Your task to perform on an android device: turn on bluetooth scan Image 0: 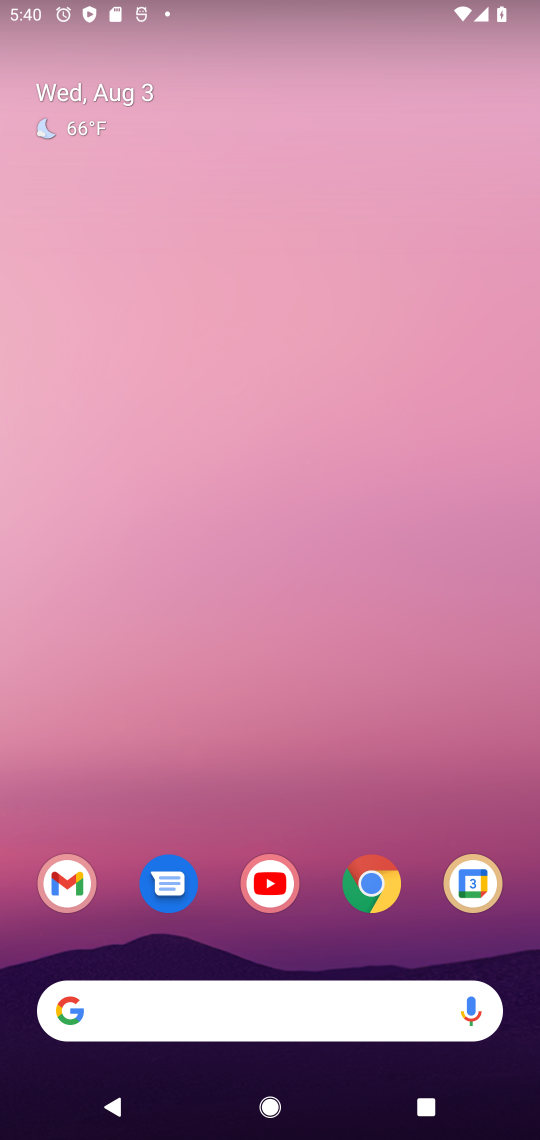
Step 0: drag from (361, 973) to (383, 257)
Your task to perform on an android device: turn on bluetooth scan Image 1: 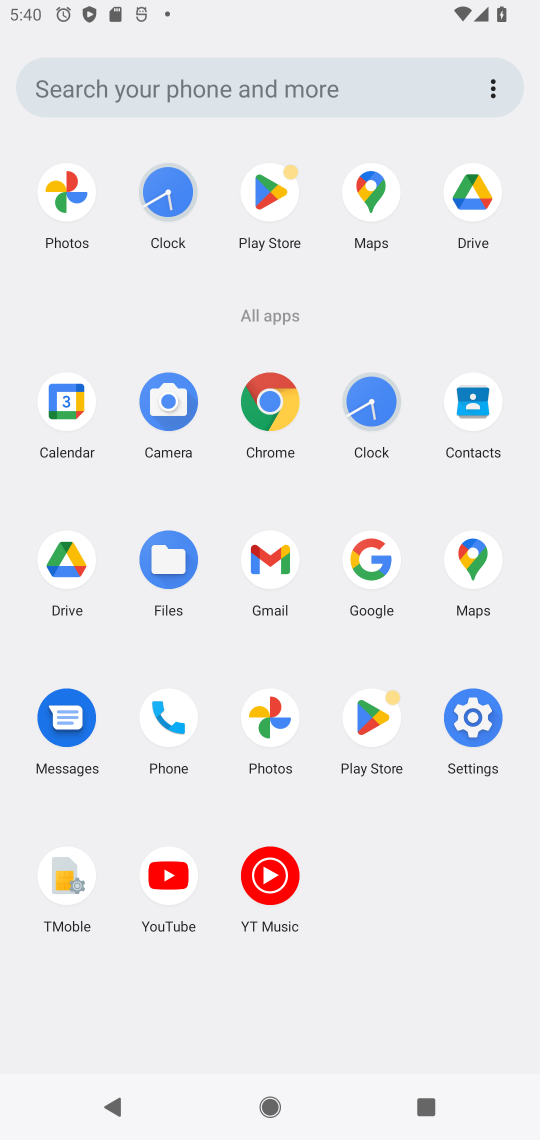
Step 1: click (481, 739)
Your task to perform on an android device: turn on bluetooth scan Image 2: 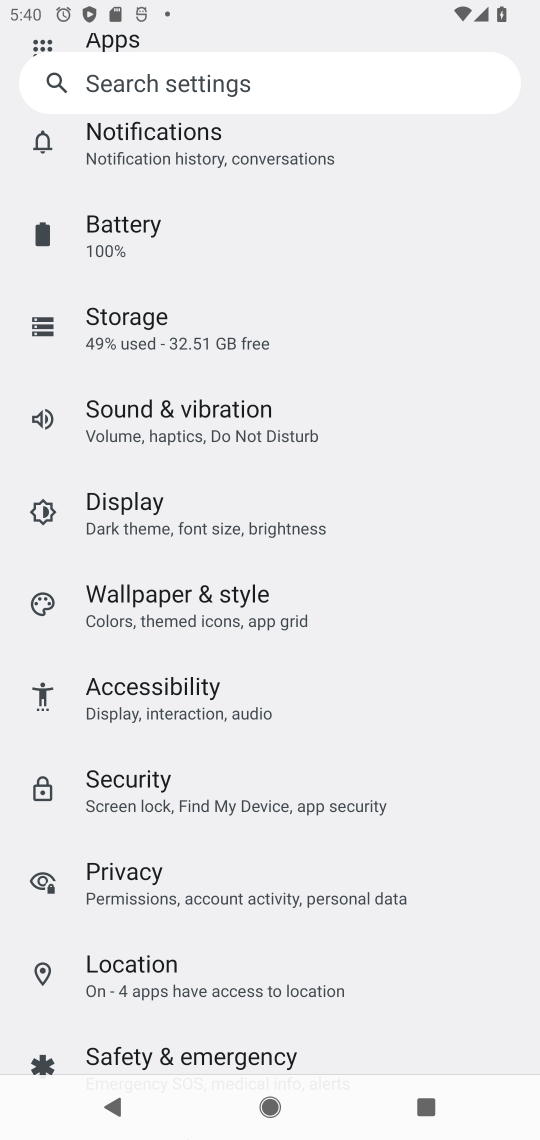
Step 2: click (172, 978)
Your task to perform on an android device: turn on bluetooth scan Image 3: 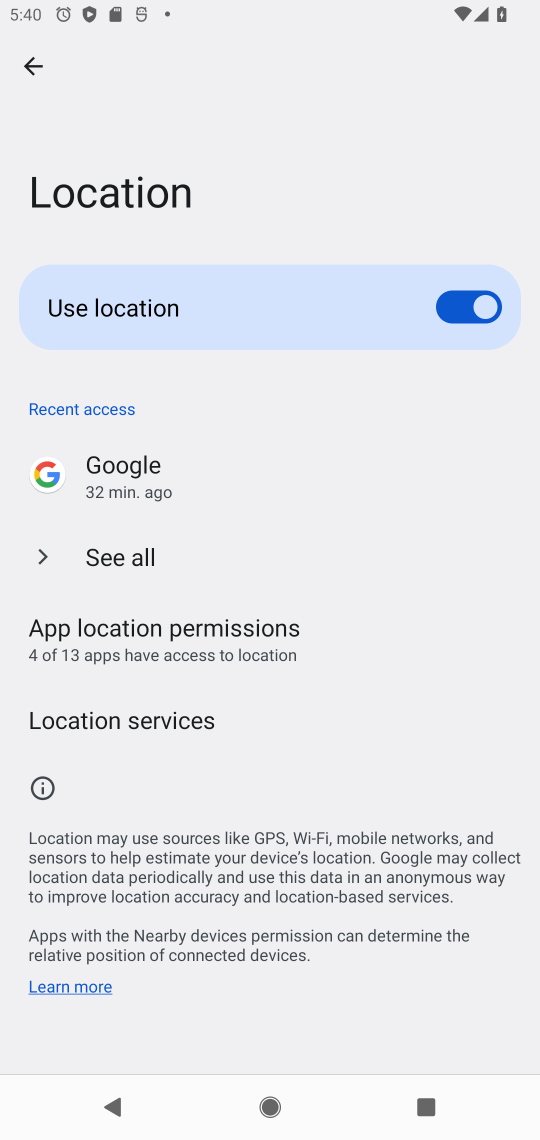
Step 3: drag from (172, 975) to (244, 453)
Your task to perform on an android device: turn on bluetooth scan Image 4: 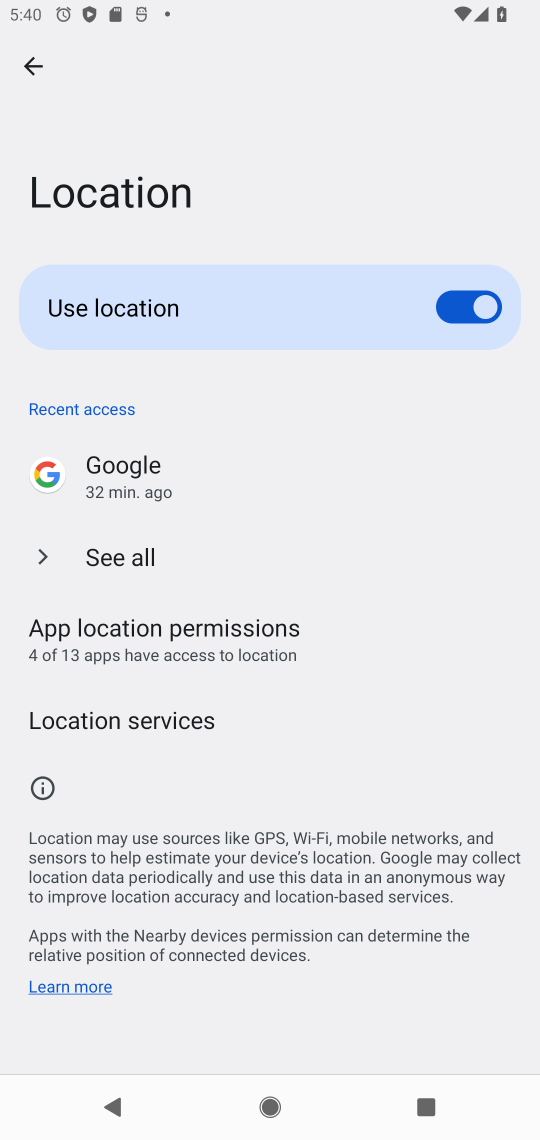
Step 4: click (95, 707)
Your task to perform on an android device: turn on bluetooth scan Image 5: 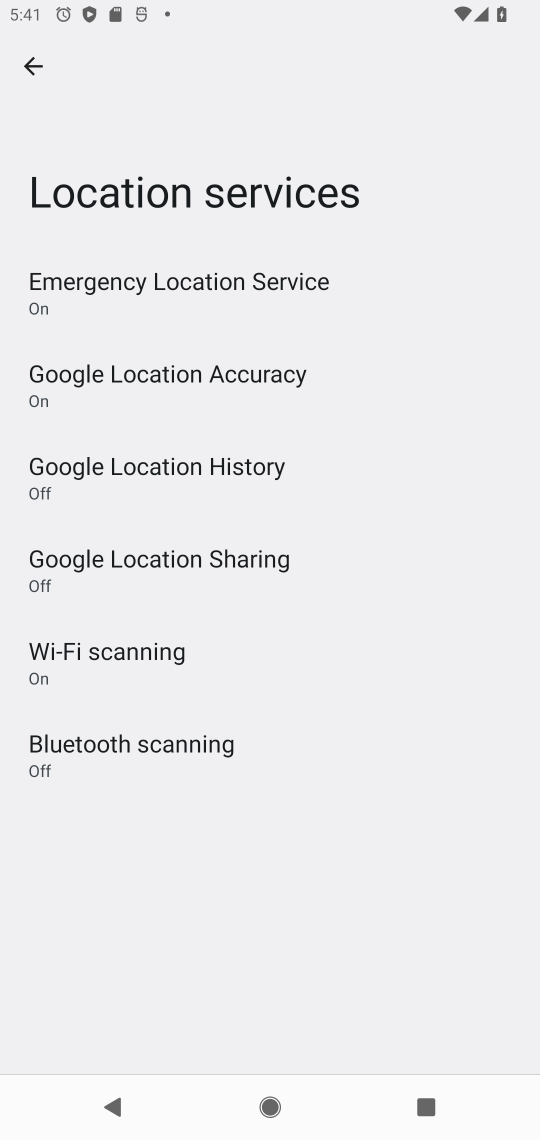
Step 5: click (145, 747)
Your task to perform on an android device: turn on bluetooth scan Image 6: 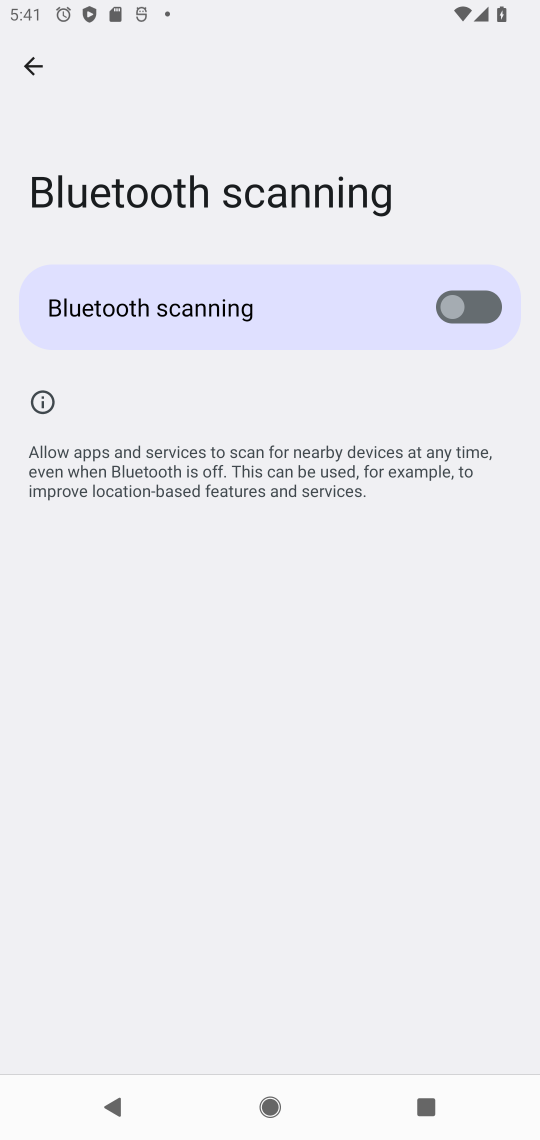
Step 6: click (463, 303)
Your task to perform on an android device: turn on bluetooth scan Image 7: 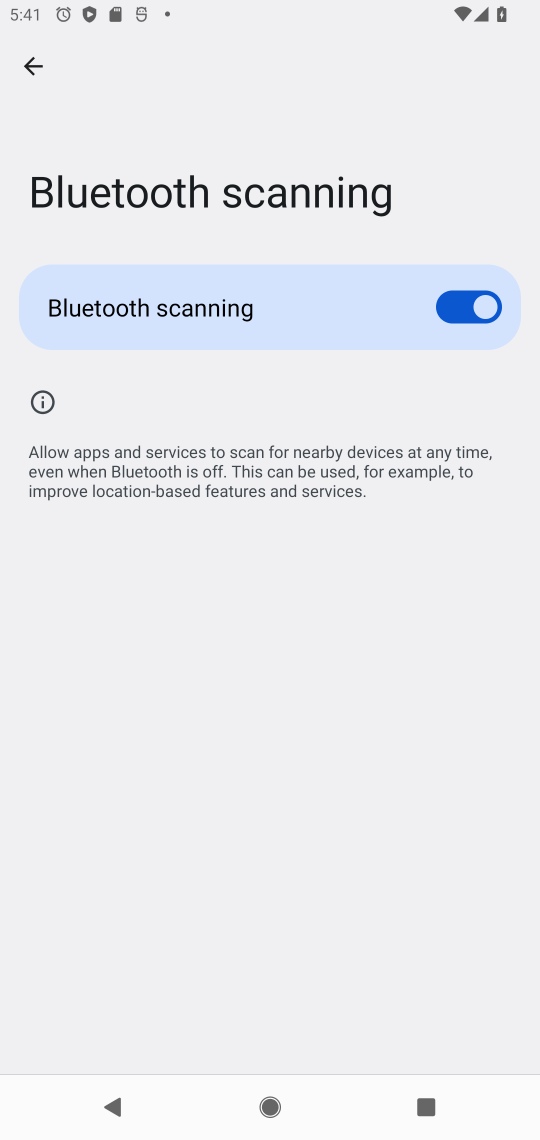
Step 7: task complete